Your task to perform on an android device: install app "Microsoft Excel" Image 0: 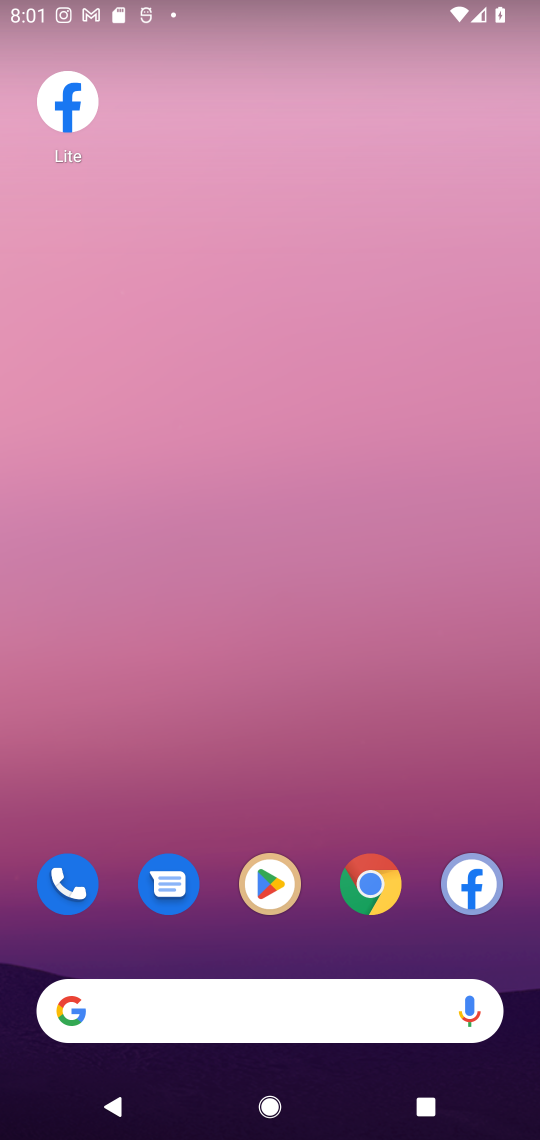
Step 0: drag from (276, 1016) to (338, 85)
Your task to perform on an android device: install app "Microsoft Excel" Image 1: 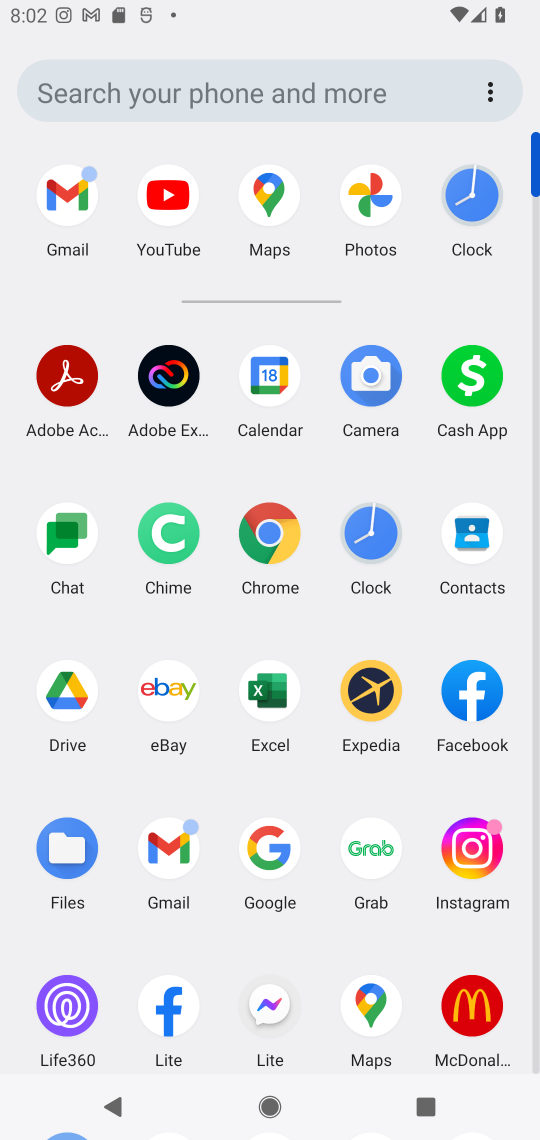
Step 1: drag from (244, 795) to (338, 286)
Your task to perform on an android device: install app "Microsoft Excel" Image 2: 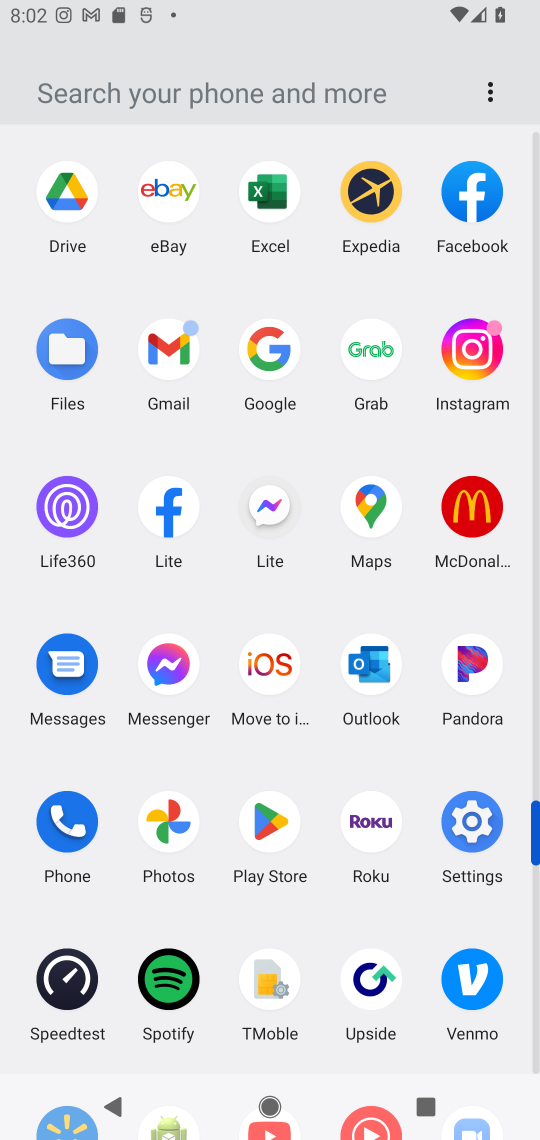
Step 2: click (277, 833)
Your task to perform on an android device: install app "Microsoft Excel" Image 3: 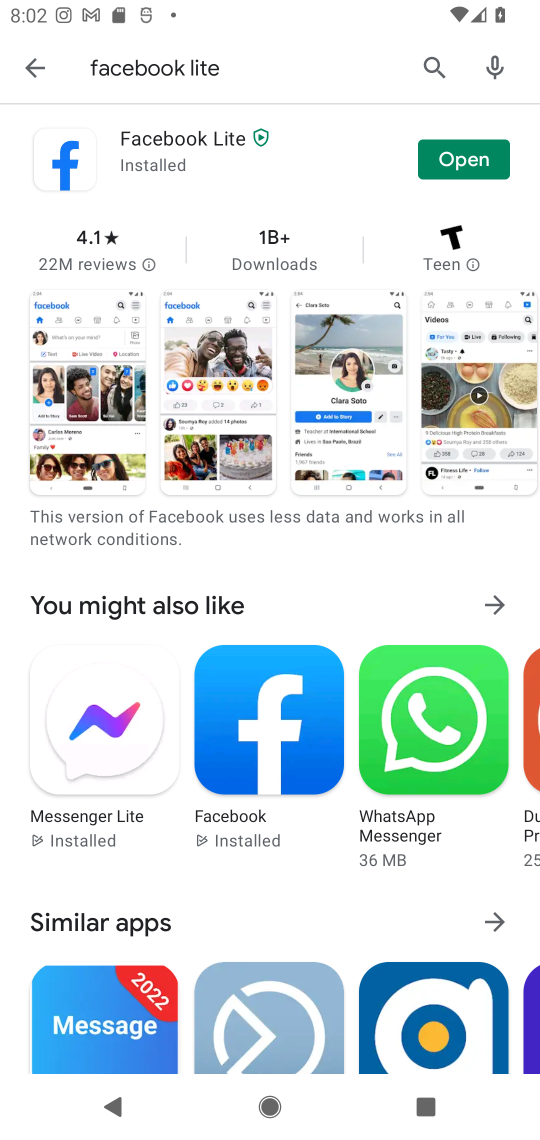
Step 3: press back button
Your task to perform on an android device: install app "Microsoft Excel" Image 4: 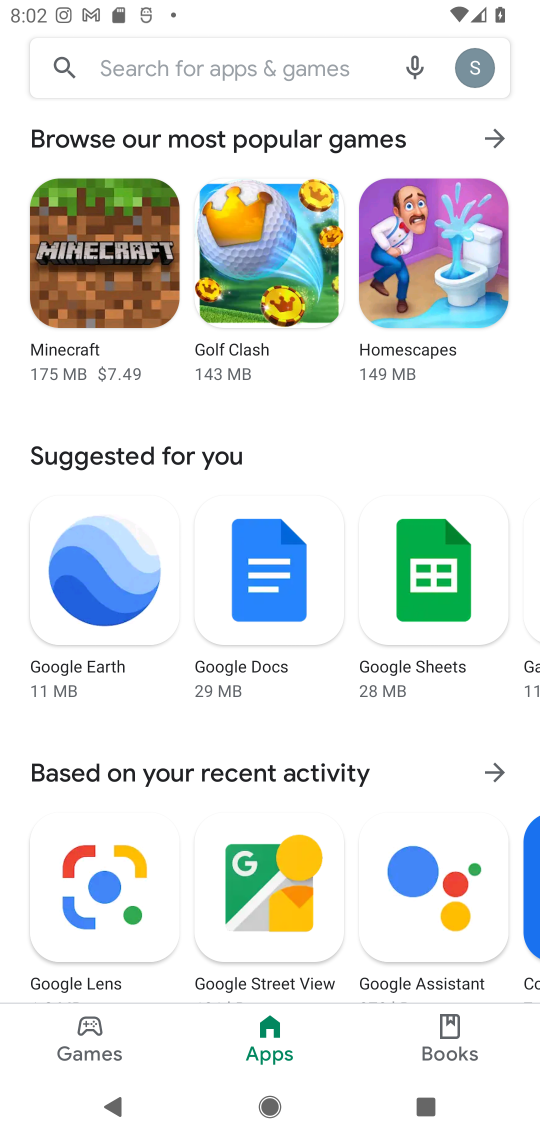
Step 4: click (201, 71)
Your task to perform on an android device: install app "Microsoft Excel" Image 5: 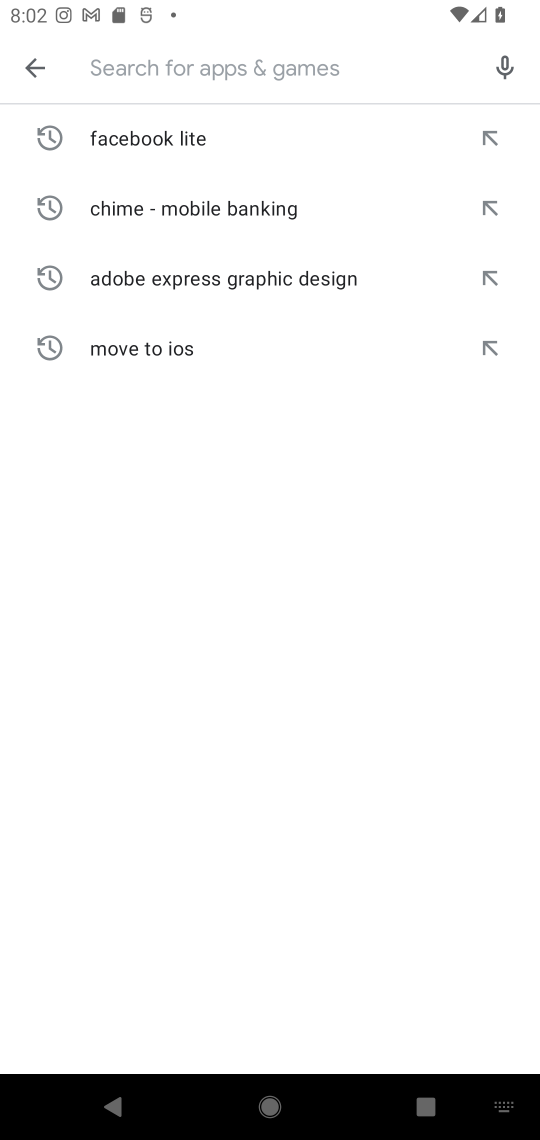
Step 5: type "Microsoft Excel"
Your task to perform on an android device: install app "Microsoft Excel" Image 6: 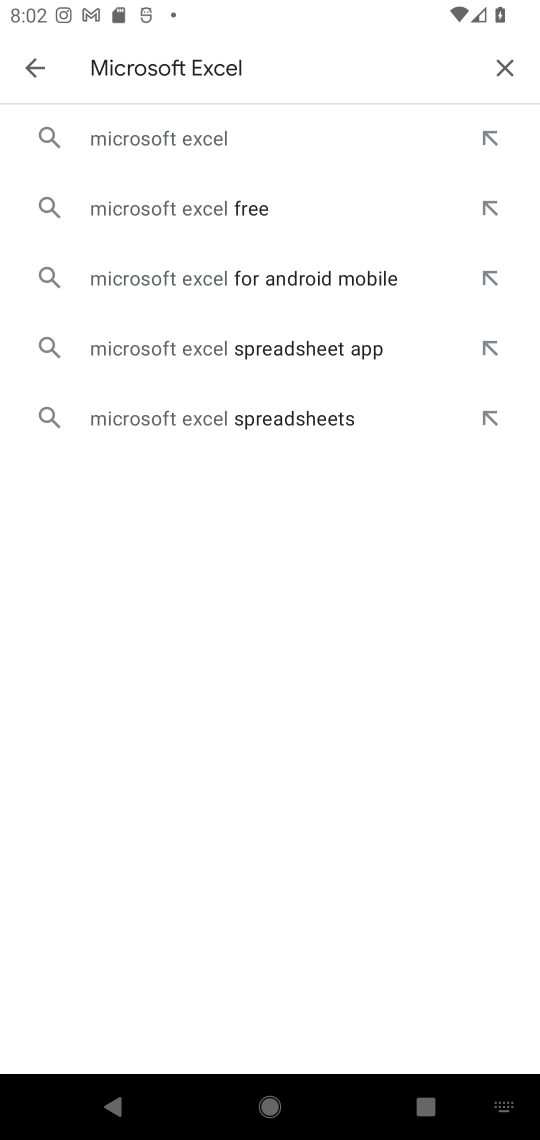
Step 6: click (169, 135)
Your task to perform on an android device: install app "Microsoft Excel" Image 7: 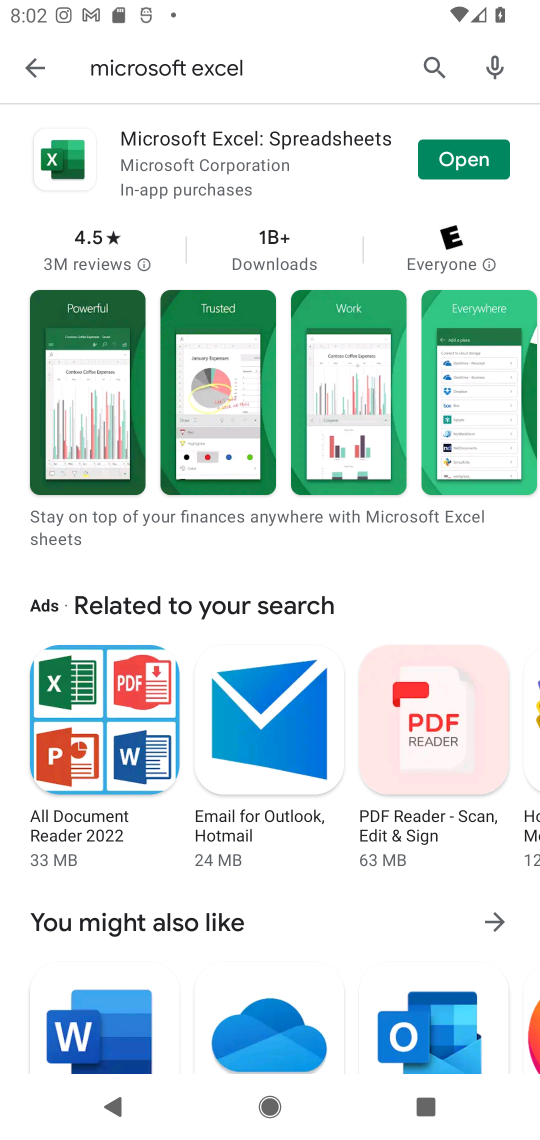
Step 7: task complete